Your task to perform on an android device: add a label to a message in the gmail app Image 0: 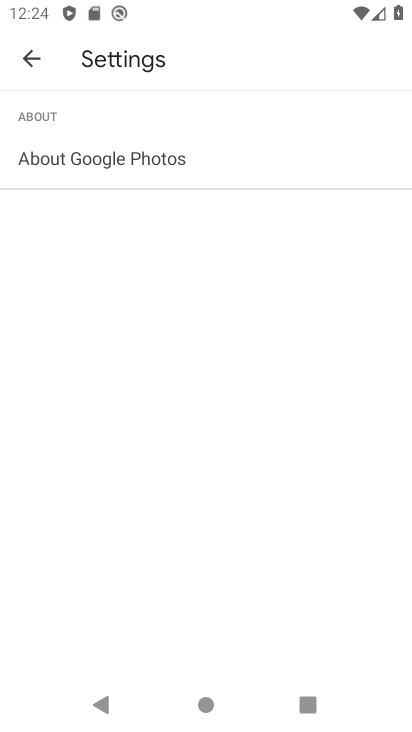
Step 0: press home button
Your task to perform on an android device: add a label to a message in the gmail app Image 1: 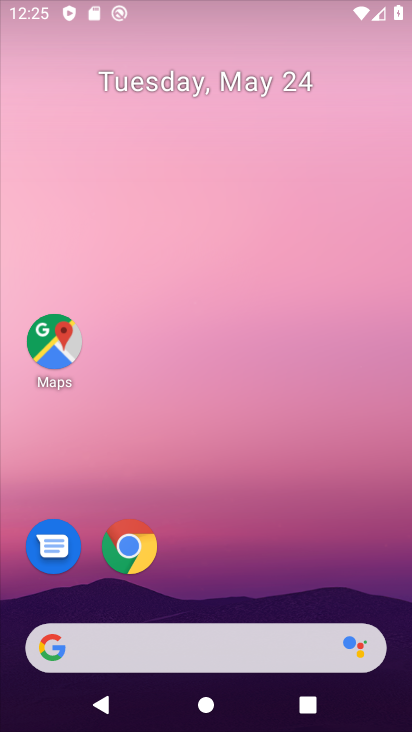
Step 1: drag from (267, 702) to (237, 63)
Your task to perform on an android device: add a label to a message in the gmail app Image 2: 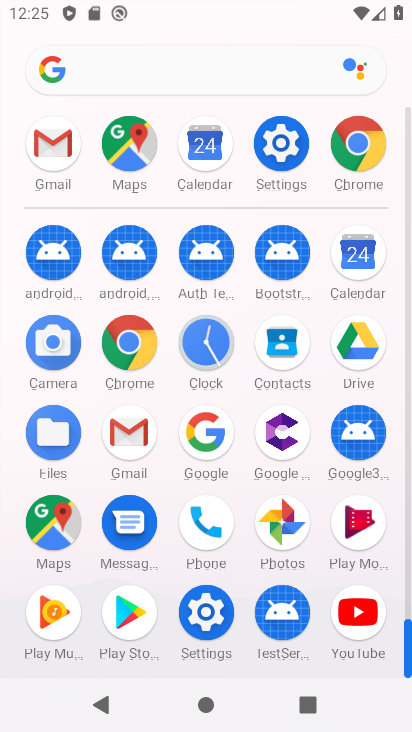
Step 2: click (141, 442)
Your task to perform on an android device: add a label to a message in the gmail app Image 3: 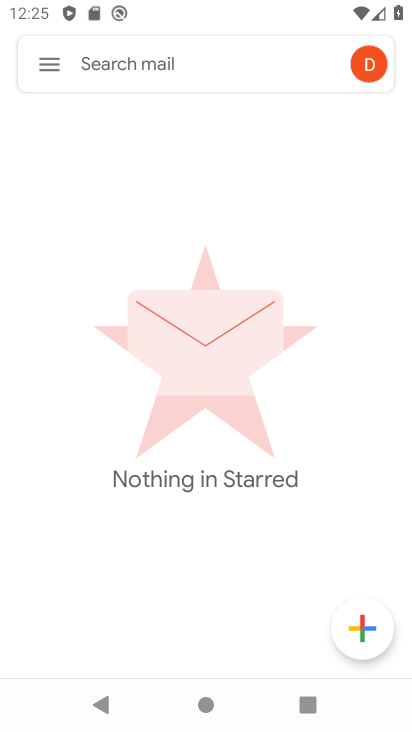
Step 3: click (55, 59)
Your task to perform on an android device: add a label to a message in the gmail app Image 4: 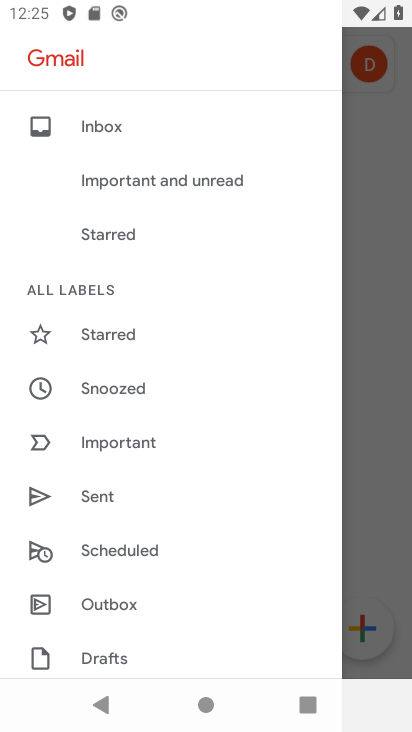
Step 4: drag from (130, 568) to (136, 292)
Your task to perform on an android device: add a label to a message in the gmail app Image 5: 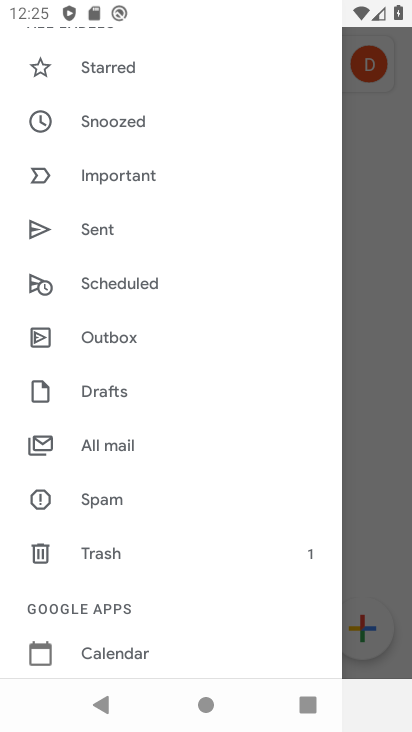
Step 5: drag from (163, 196) to (109, 700)
Your task to perform on an android device: add a label to a message in the gmail app Image 6: 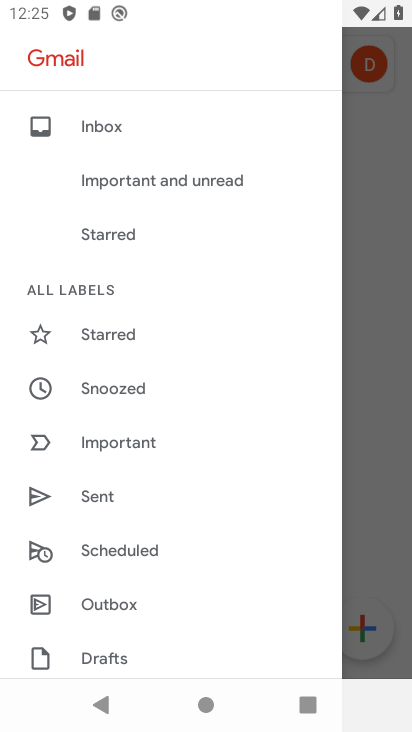
Step 6: click (110, 127)
Your task to perform on an android device: add a label to a message in the gmail app Image 7: 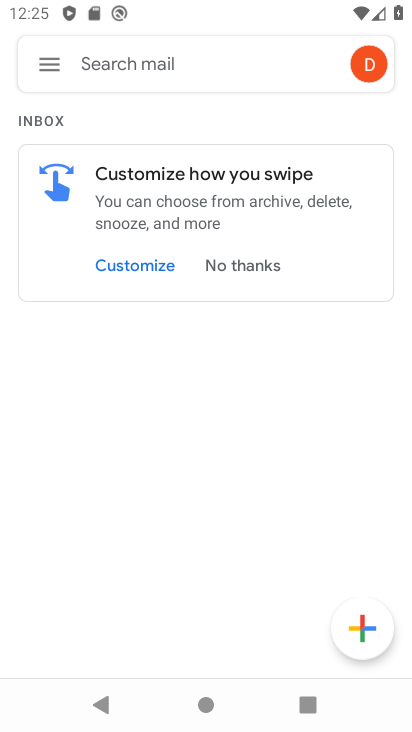
Step 7: drag from (181, 129) to (194, 417)
Your task to perform on an android device: add a label to a message in the gmail app Image 8: 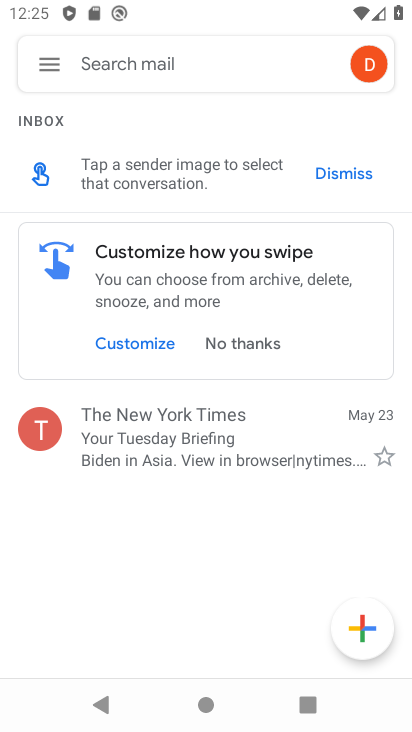
Step 8: click (221, 461)
Your task to perform on an android device: add a label to a message in the gmail app Image 9: 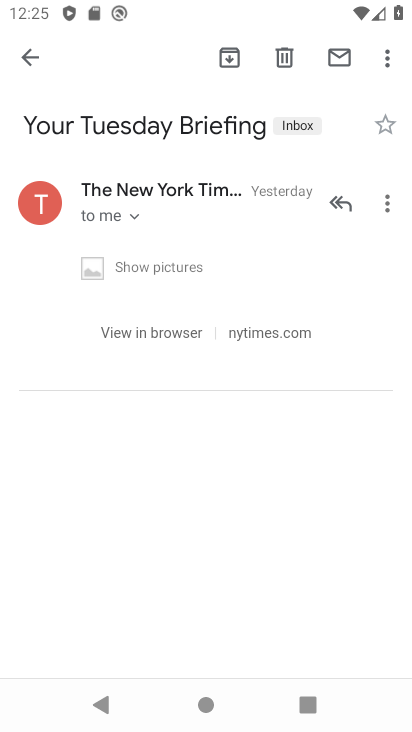
Step 9: click (391, 197)
Your task to perform on an android device: add a label to a message in the gmail app Image 10: 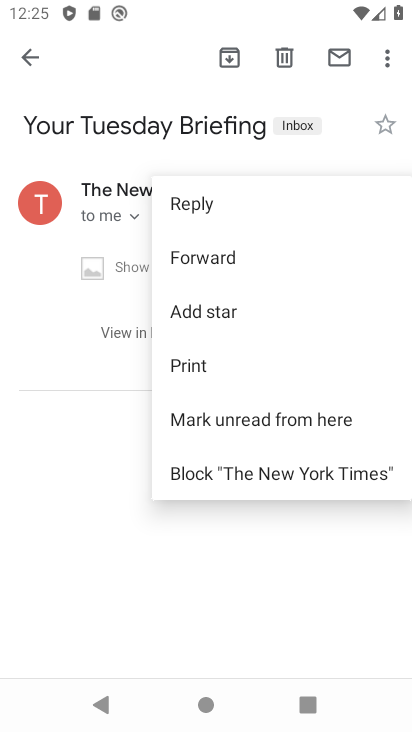
Step 10: drag from (254, 436) to (257, 151)
Your task to perform on an android device: add a label to a message in the gmail app Image 11: 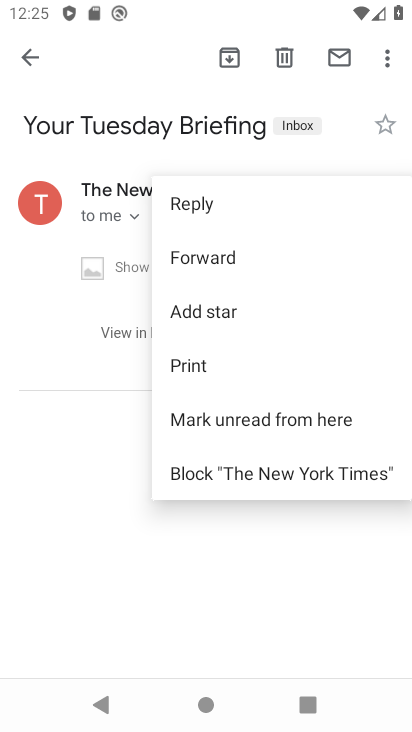
Step 11: click (65, 483)
Your task to perform on an android device: add a label to a message in the gmail app Image 12: 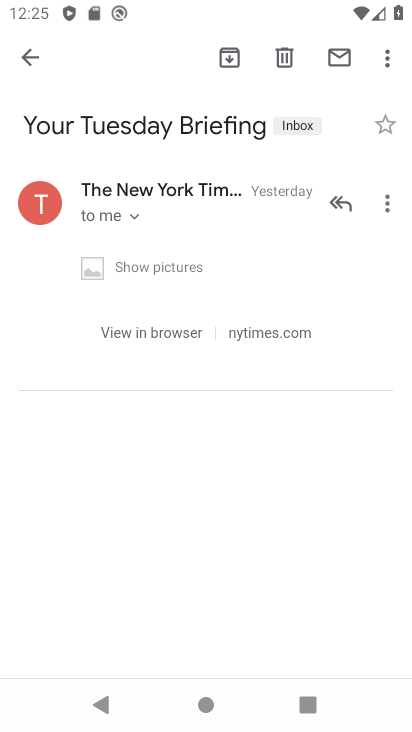
Step 12: click (392, 57)
Your task to perform on an android device: add a label to a message in the gmail app Image 13: 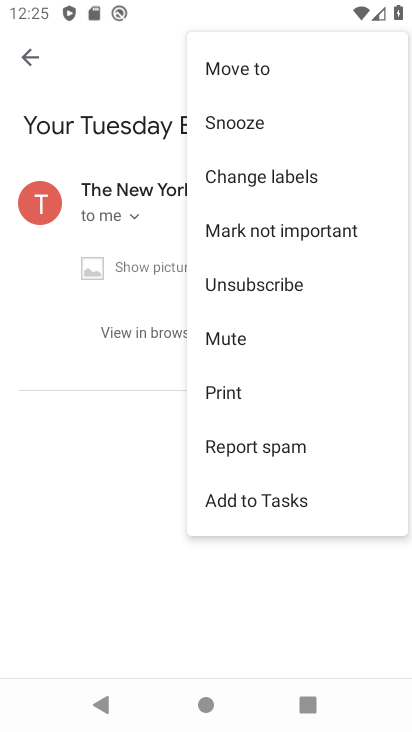
Step 13: click (257, 185)
Your task to perform on an android device: add a label to a message in the gmail app Image 14: 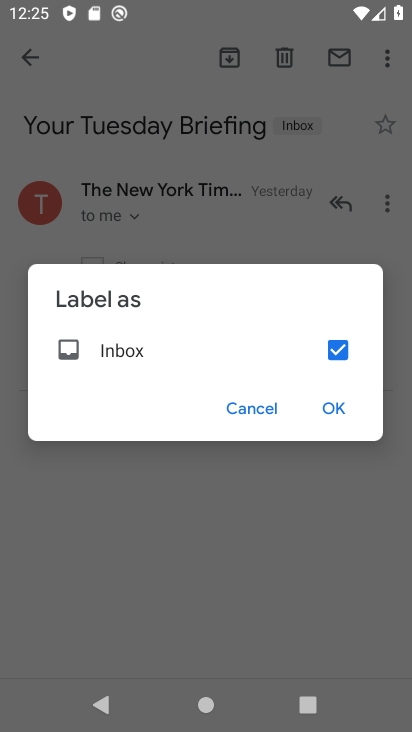
Step 14: click (336, 410)
Your task to perform on an android device: add a label to a message in the gmail app Image 15: 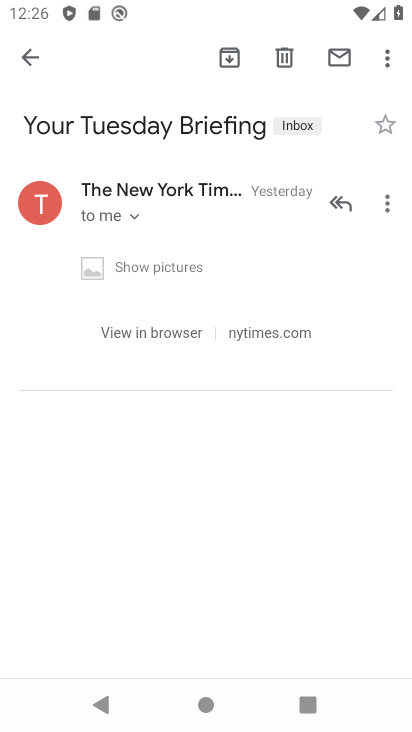
Step 15: task complete